Your task to perform on an android device: toggle notifications settings in the gmail app Image 0: 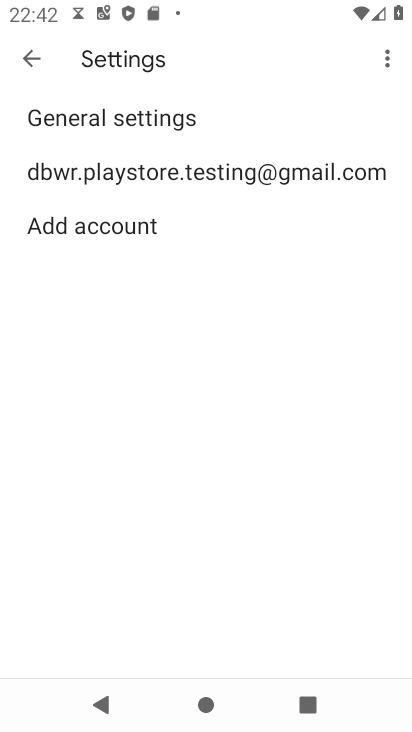
Step 0: press home button
Your task to perform on an android device: toggle notifications settings in the gmail app Image 1: 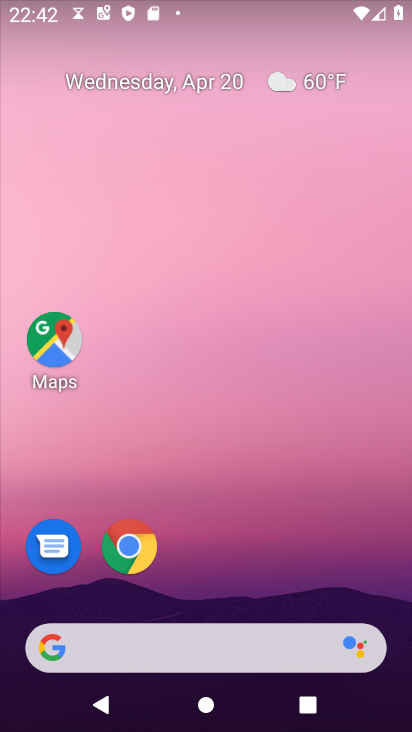
Step 1: drag from (232, 544) to (225, 20)
Your task to perform on an android device: toggle notifications settings in the gmail app Image 2: 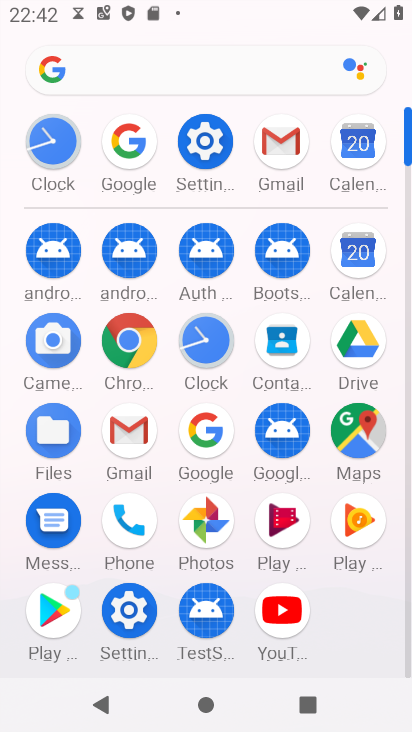
Step 2: click (125, 437)
Your task to perform on an android device: toggle notifications settings in the gmail app Image 3: 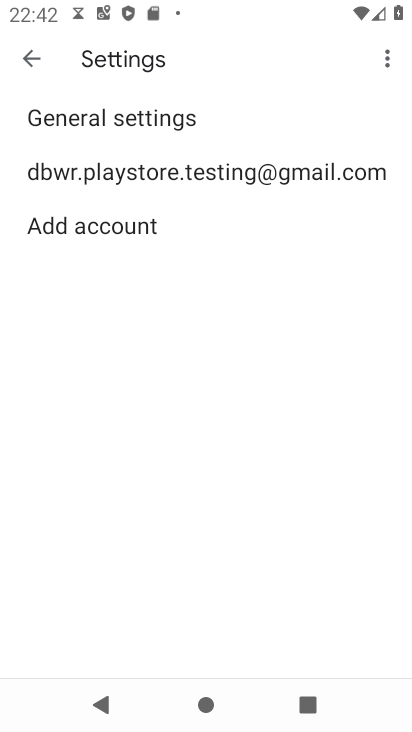
Step 3: click (198, 171)
Your task to perform on an android device: toggle notifications settings in the gmail app Image 4: 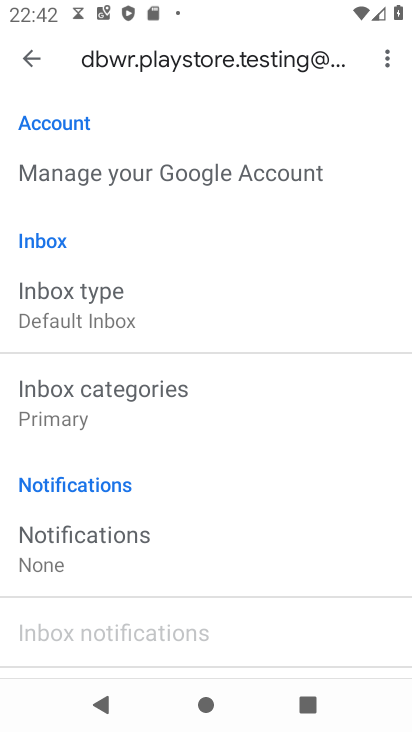
Step 4: click (161, 311)
Your task to perform on an android device: toggle notifications settings in the gmail app Image 5: 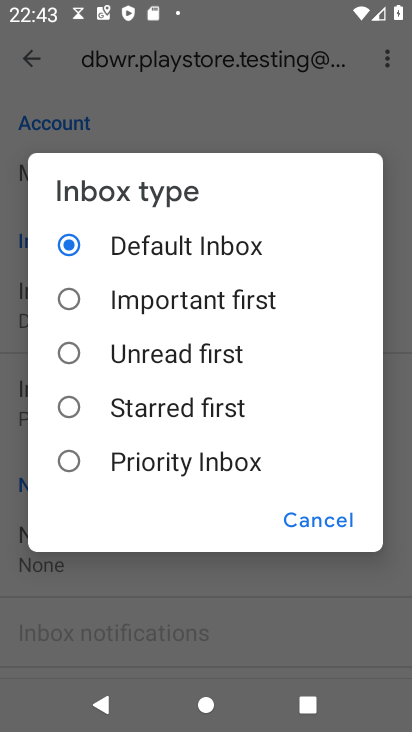
Step 5: click (319, 518)
Your task to perform on an android device: toggle notifications settings in the gmail app Image 6: 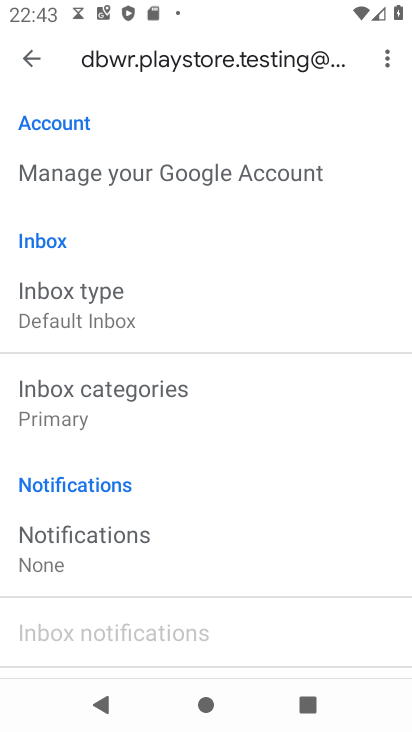
Step 6: click (117, 547)
Your task to perform on an android device: toggle notifications settings in the gmail app Image 7: 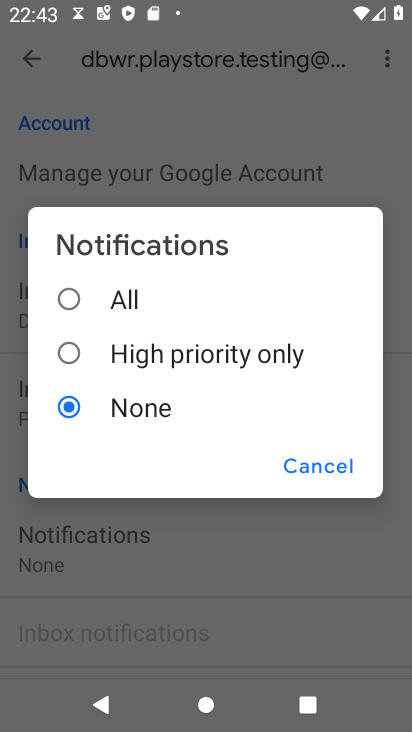
Step 7: click (123, 298)
Your task to perform on an android device: toggle notifications settings in the gmail app Image 8: 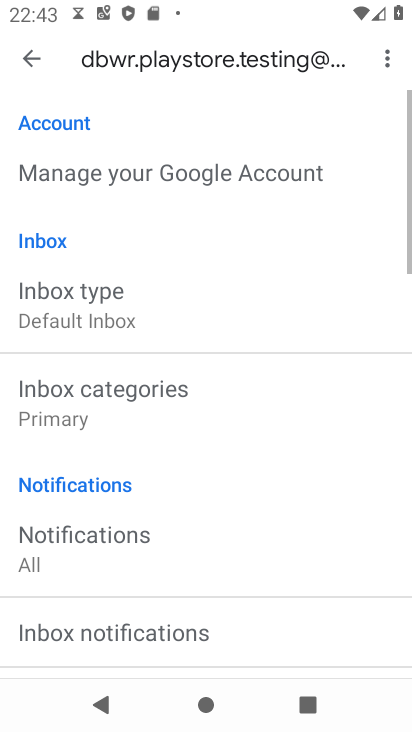
Step 8: task complete